Your task to perform on an android device: refresh tabs in the chrome app Image 0: 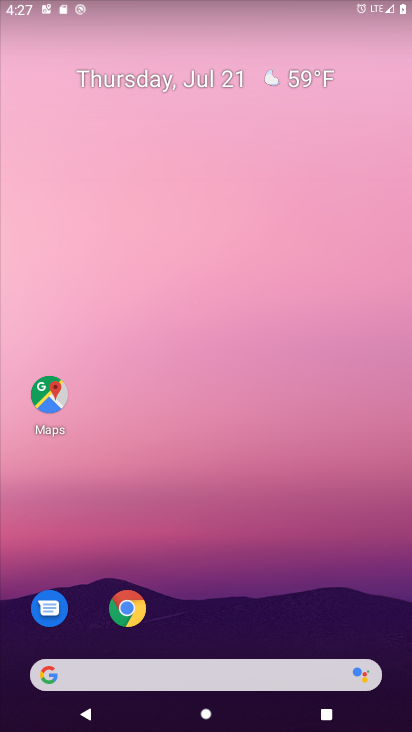
Step 0: drag from (216, 622) to (277, 38)
Your task to perform on an android device: refresh tabs in the chrome app Image 1: 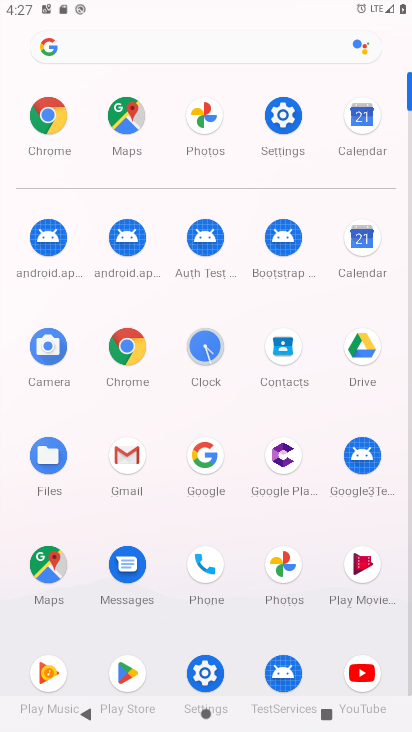
Step 1: click (128, 351)
Your task to perform on an android device: refresh tabs in the chrome app Image 2: 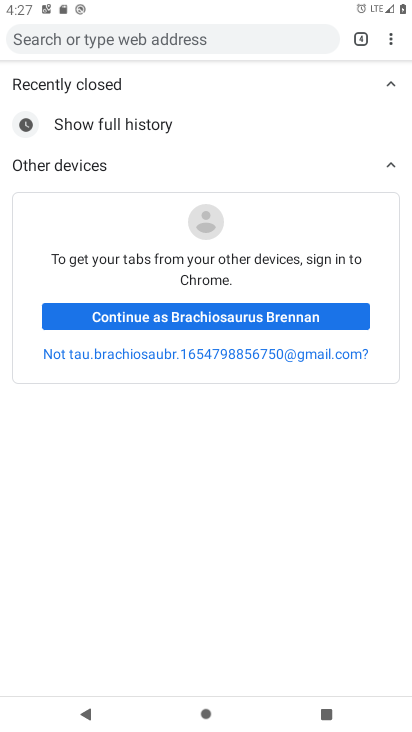
Step 2: click (386, 35)
Your task to perform on an android device: refresh tabs in the chrome app Image 3: 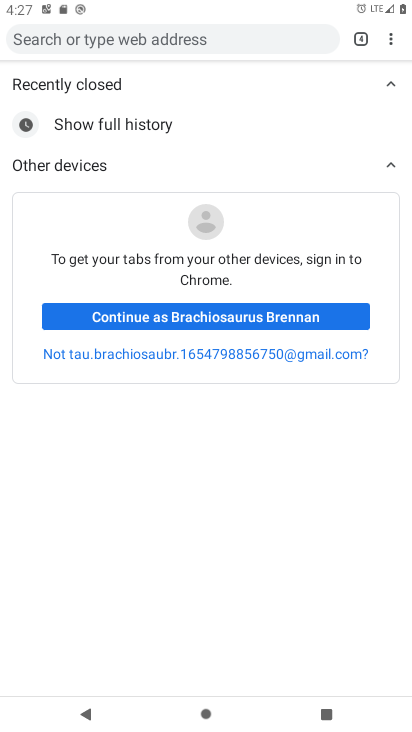
Step 3: click (391, 43)
Your task to perform on an android device: refresh tabs in the chrome app Image 4: 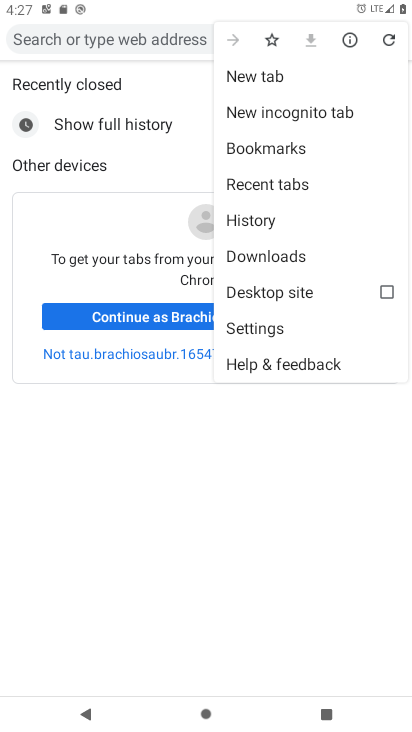
Step 4: click (389, 36)
Your task to perform on an android device: refresh tabs in the chrome app Image 5: 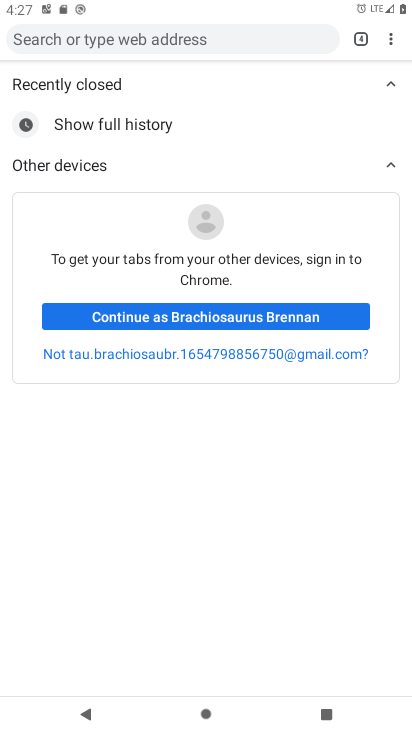
Step 5: task complete